Your task to perform on an android device: Show me popular videos on Youtube Image 0: 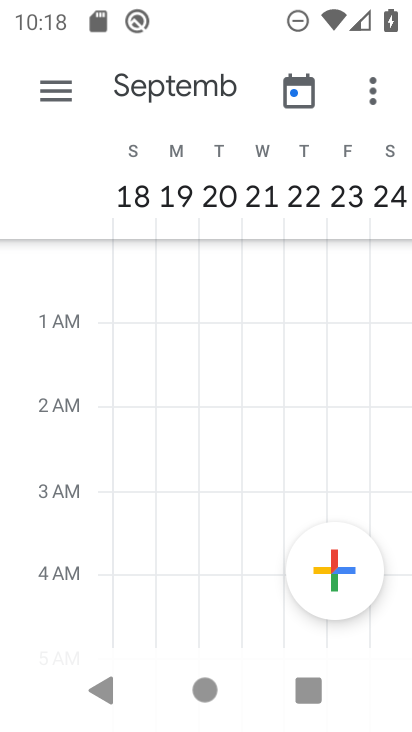
Step 0: press home button
Your task to perform on an android device: Show me popular videos on Youtube Image 1: 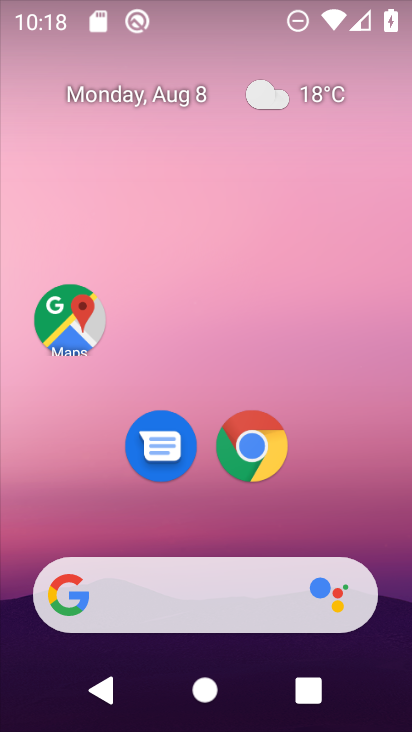
Step 1: drag from (403, 622) to (358, 188)
Your task to perform on an android device: Show me popular videos on Youtube Image 2: 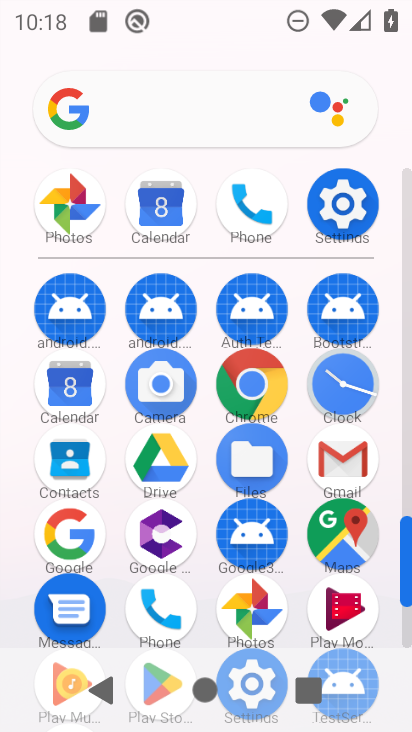
Step 2: click (405, 637)
Your task to perform on an android device: Show me popular videos on Youtube Image 3: 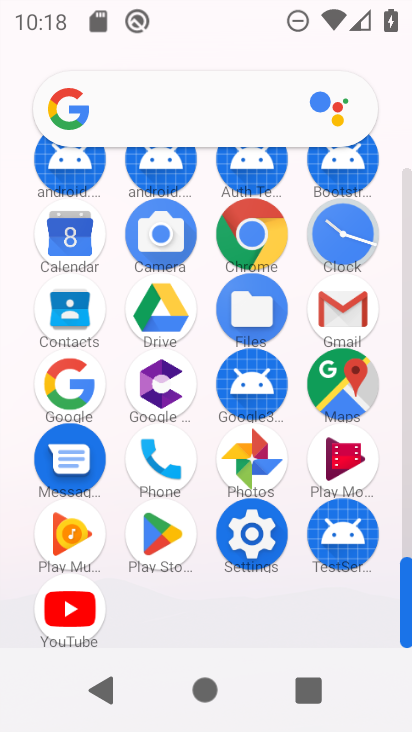
Step 3: click (67, 606)
Your task to perform on an android device: Show me popular videos on Youtube Image 4: 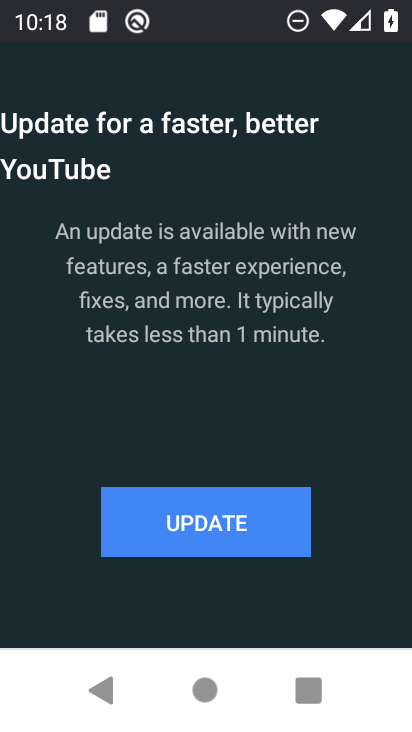
Step 4: click (200, 524)
Your task to perform on an android device: Show me popular videos on Youtube Image 5: 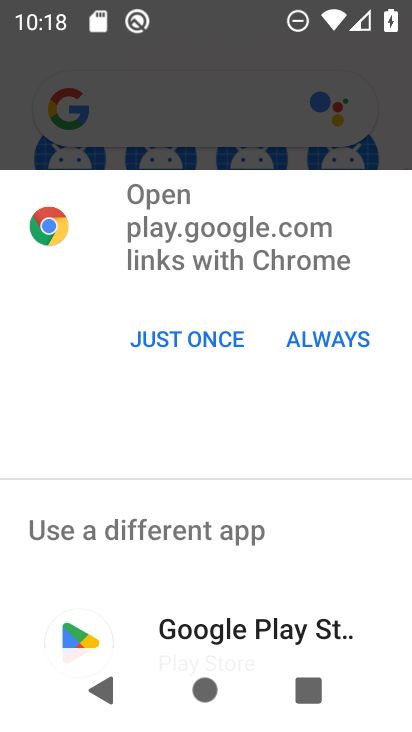
Step 5: click (162, 336)
Your task to perform on an android device: Show me popular videos on Youtube Image 6: 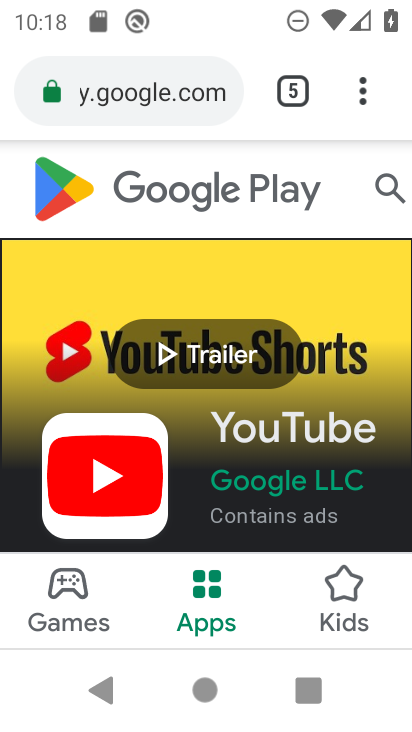
Step 6: press home button
Your task to perform on an android device: Show me popular videos on Youtube Image 7: 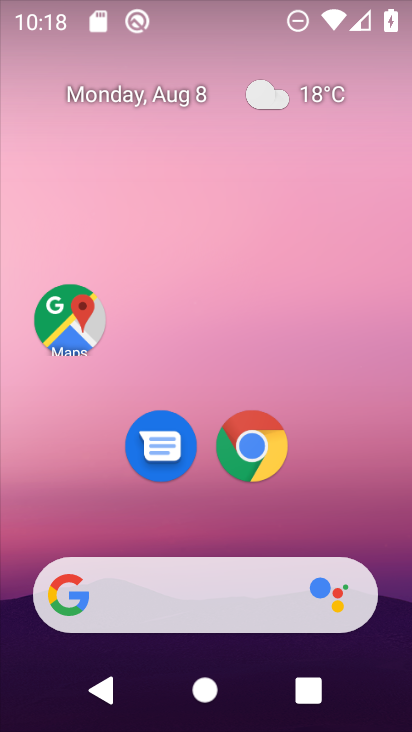
Step 7: drag from (402, 617) to (354, 100)
Your task to perform on an android device: Show me popular videos on Youtube Image 8: 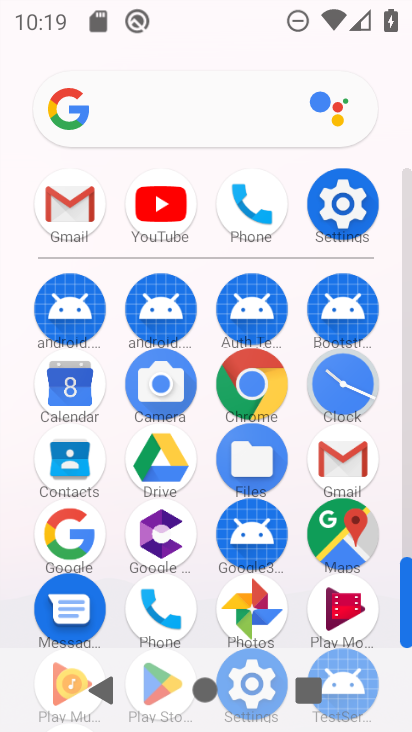
Step 8: click (405, 531)
Your task to perform on an android device: Show me popular videos on Youtube Image 9: 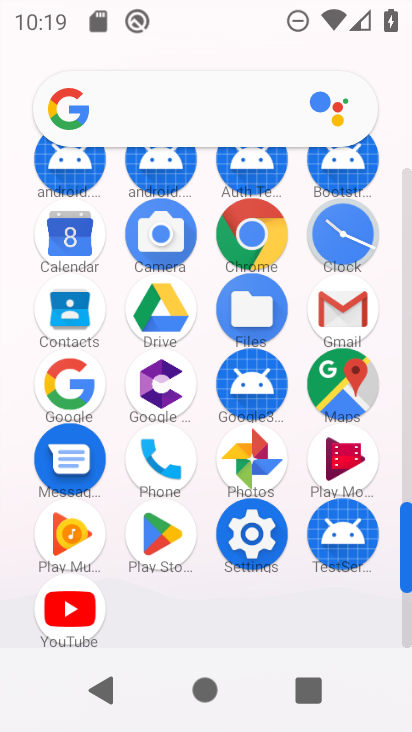
Step 9: click (70, 613)
Your task to perform on an android device: Show me popular videos on Youtube Image 10: 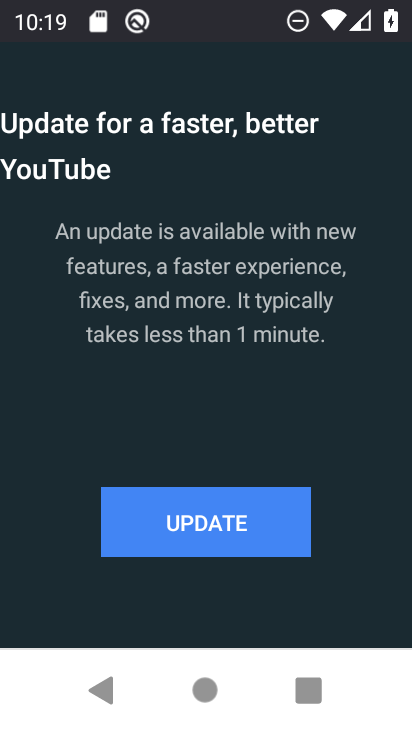
Step 10: click (202, 527)
Your task to perform on an android device: Show me popular videos on Youtube Image 11: 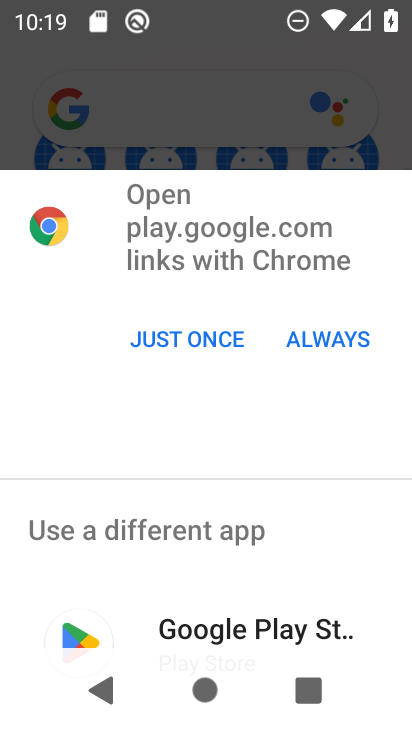
Step 11: drag from (238, 602) to (229, 344)
Your task to perform on an android device: Show me popular videos on Youtube Image 12: 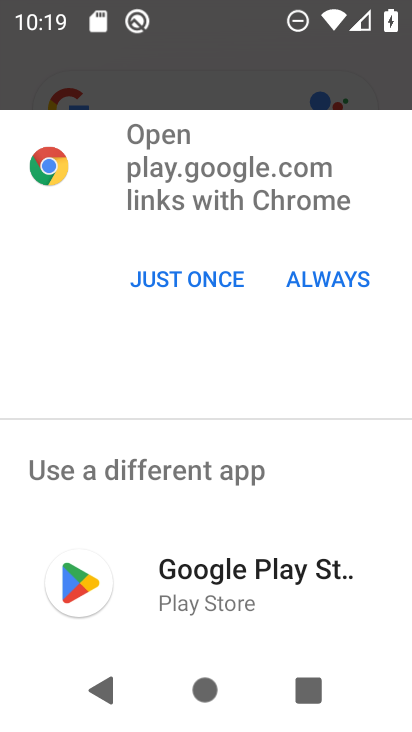
Step 12: click (220, 599)
Your task to perform on an android device: Show me popular videos on Youtube Image 13: 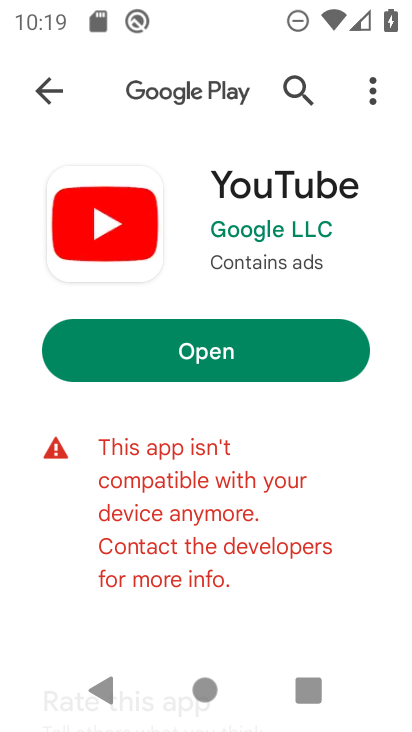
Step 13: click (205, 351)
Your task to perform on an android device: Show me popular videos on Youtube Image 14: 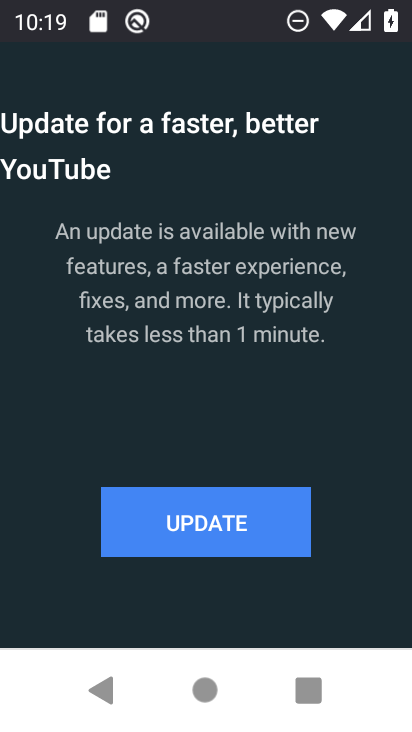
Step 14: click (204, 524)
Your task to perform on an android device: Show me popular videos on Youtube Image 15: 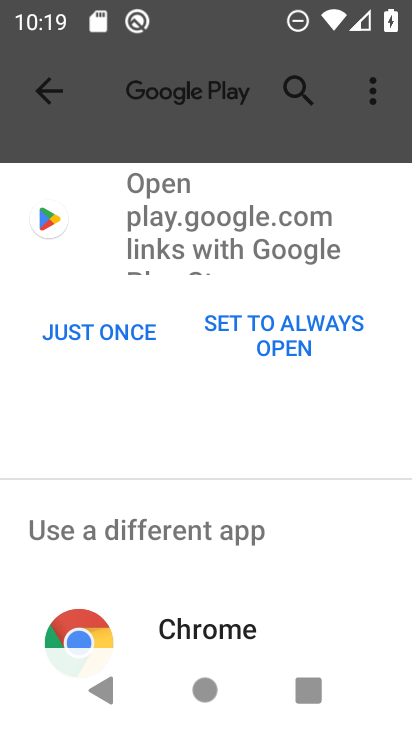
Step 15: click (80, 326)
Your task to perform on an android device: Show me popular videos on Youtube Image 16: 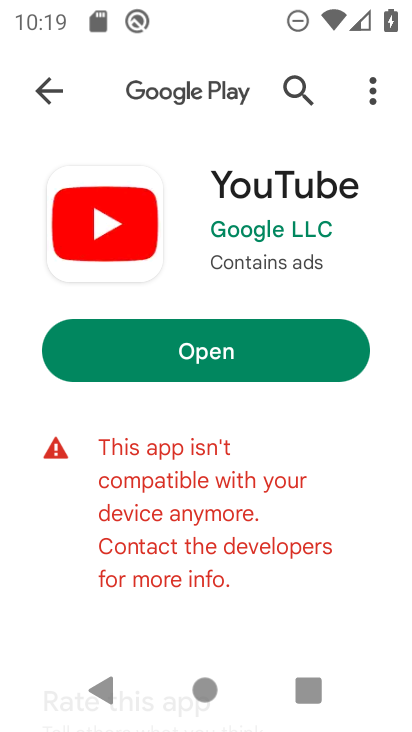
Step 16: click (220, 354)
Your task to perform on an android device: Show me popular videos on Youtube Image 17: 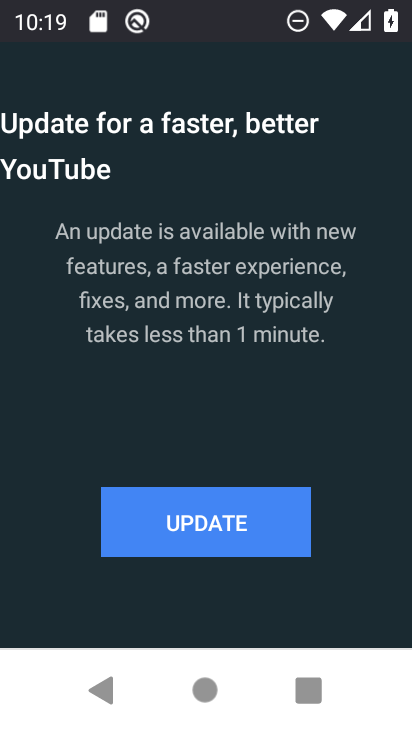
Step 17: task complete